Your task to perform on an android device: Add "duracell triple a" to the cart on ebay Image 0: 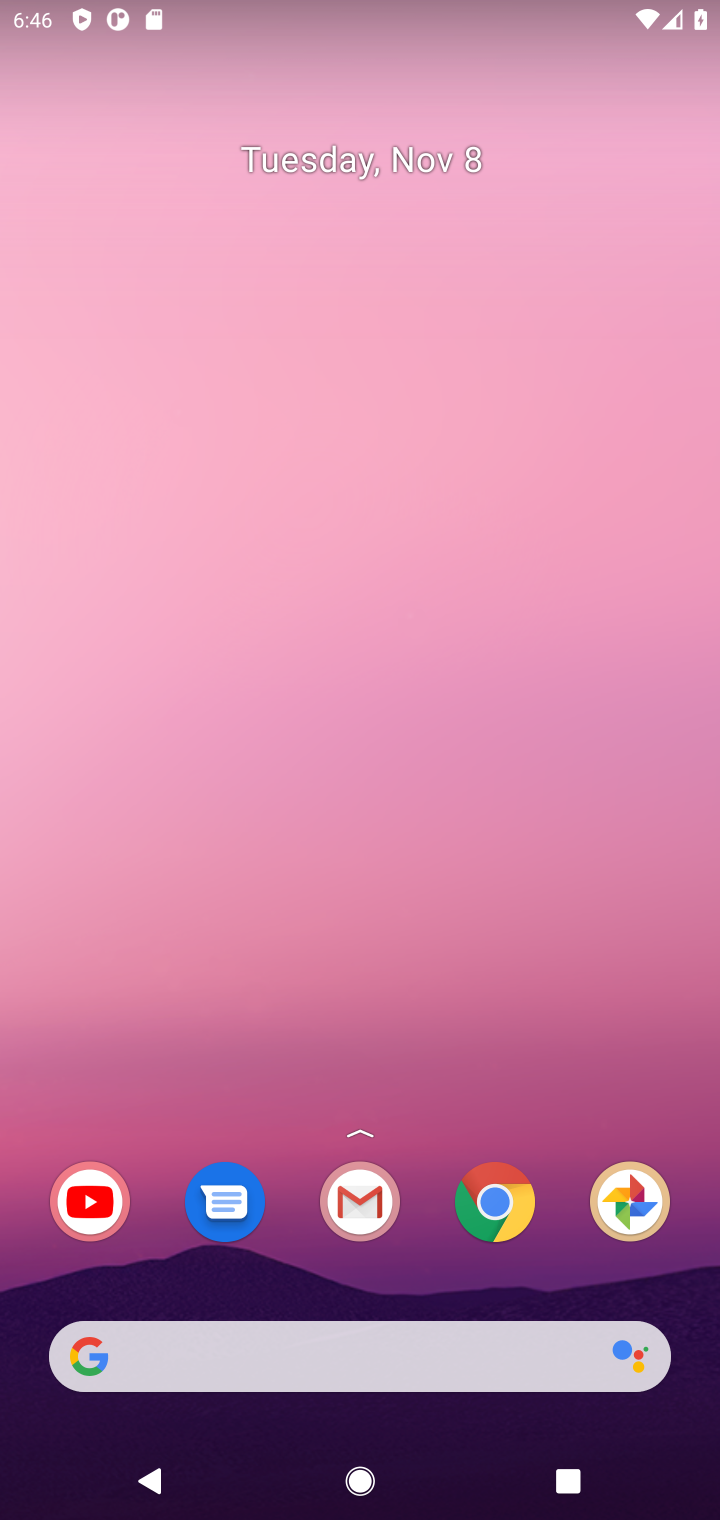
Step 0: click (283, 1355)
Your task to perform on an android device: Add "duracell triple a" to the cart on ebay Image 1: 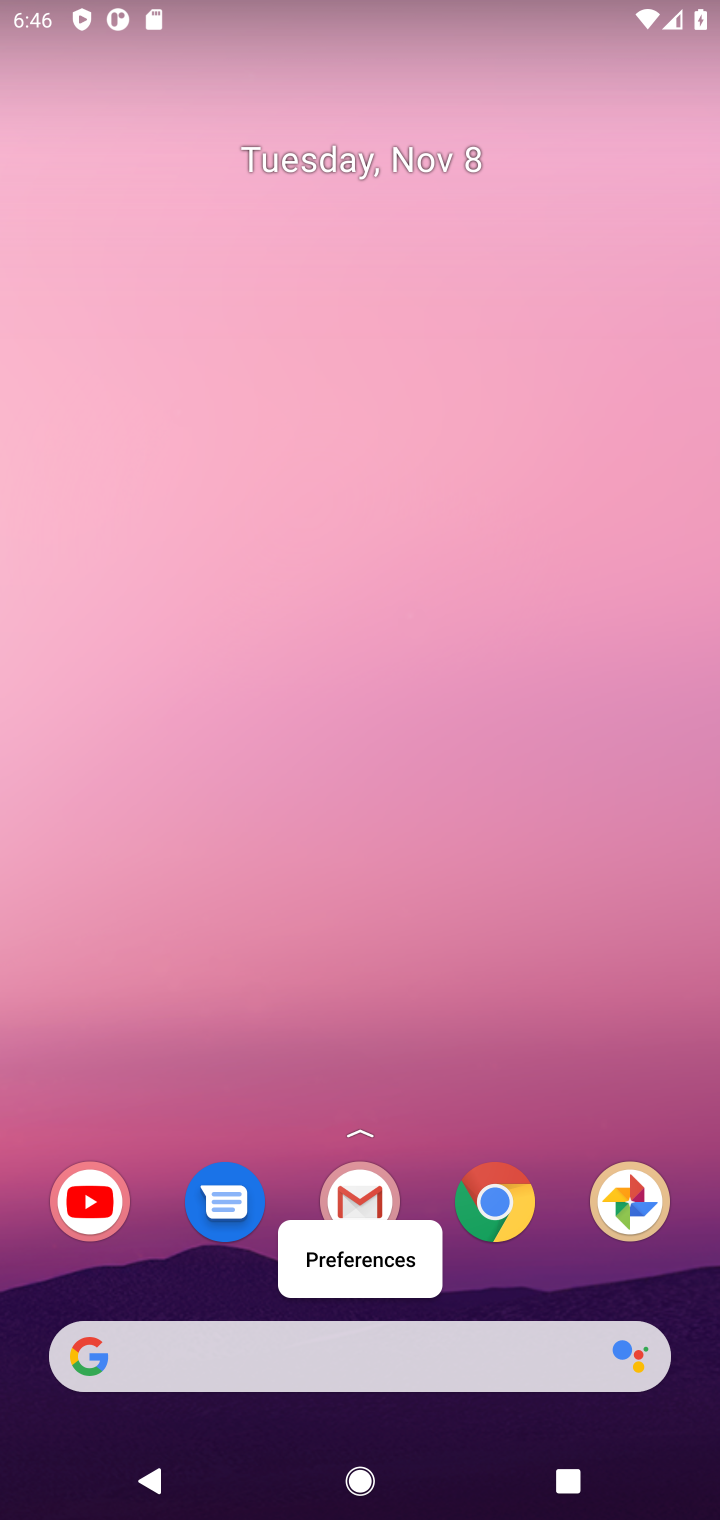
Step 1: click (265, 1363)
Your task to perform on an android device: Add "duracell triple a" to the cart on ebay Image 2: 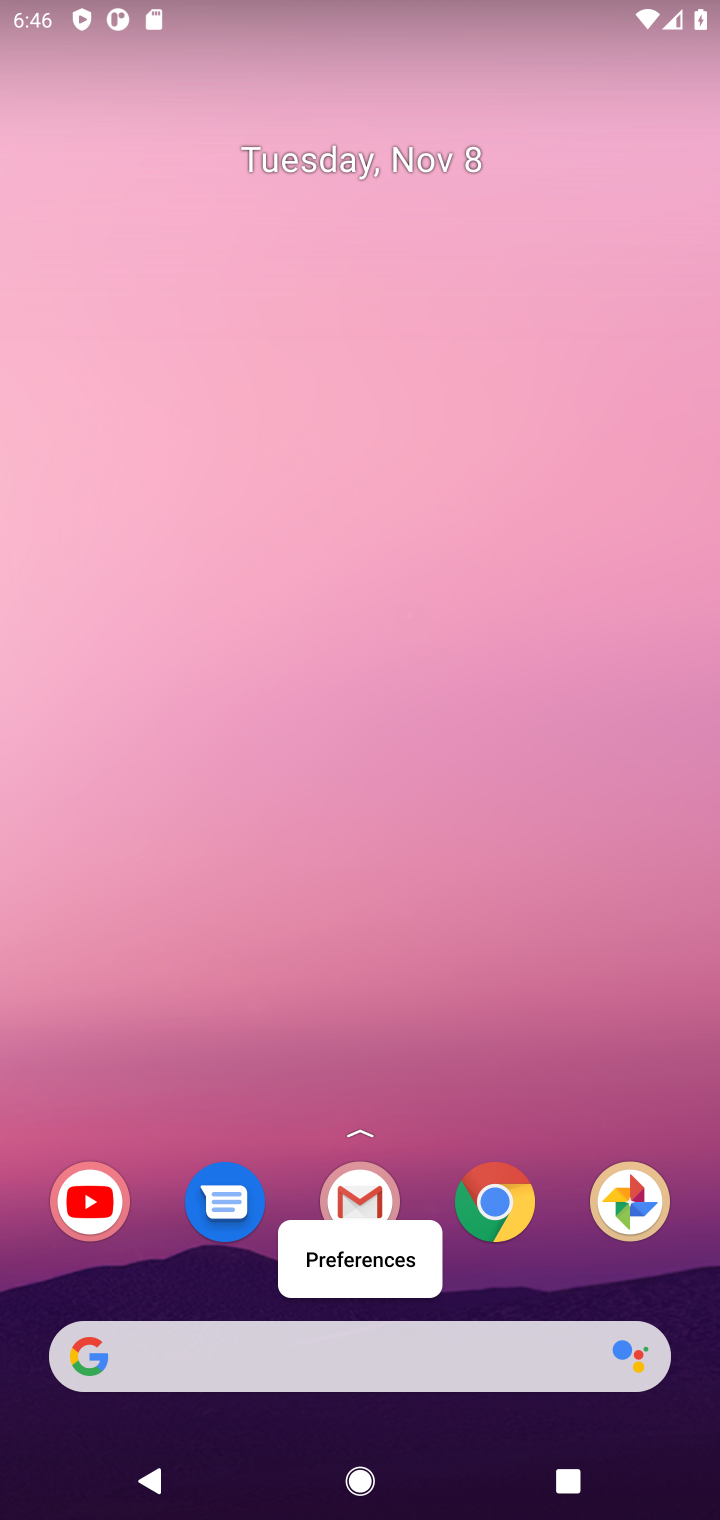
Step 2: click (265, 1363)
Your task to perform on an android device: Add "duracell triple a" to the cart on ebay Image 3: 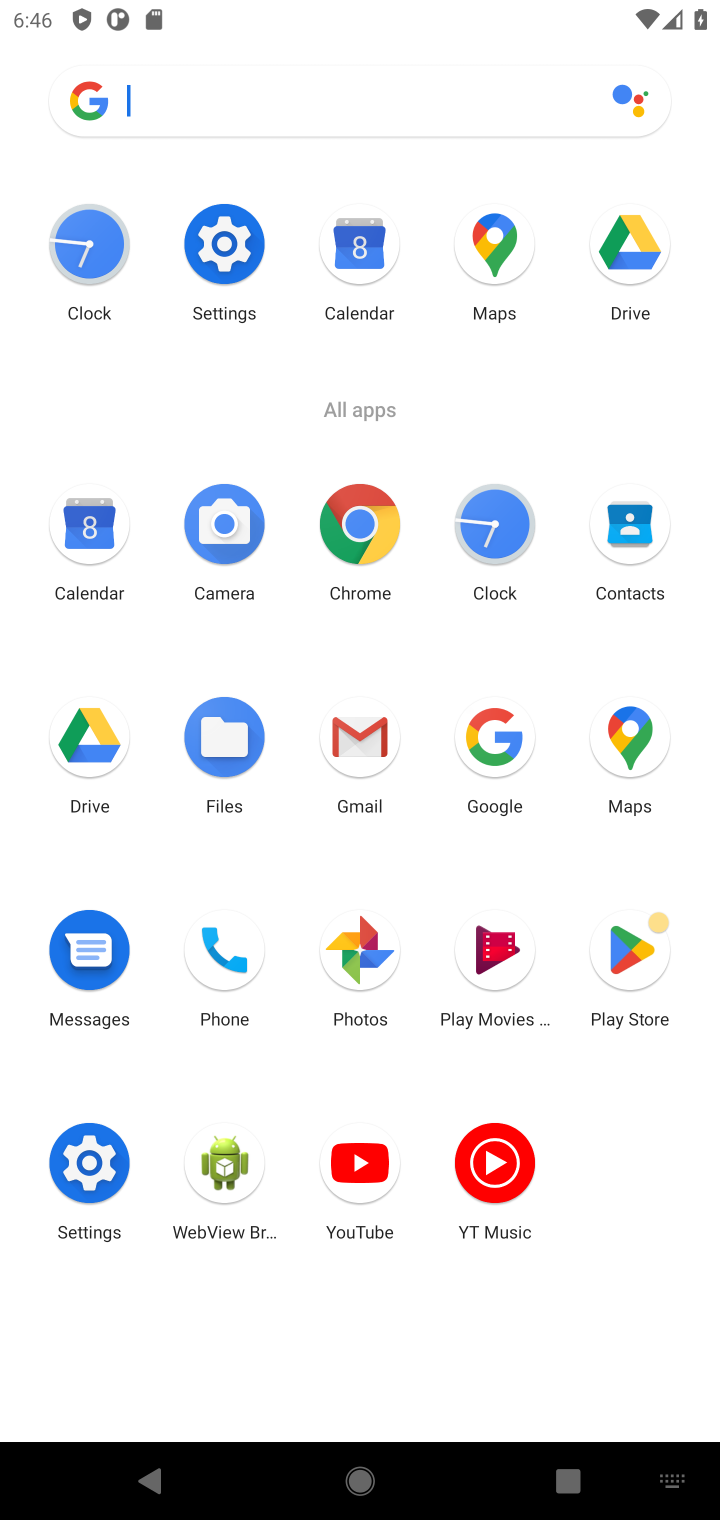
Step 3: type "ebay"
Your task to perform on an android device: Add "duracell triple a" to the cart on ebay Image 4: 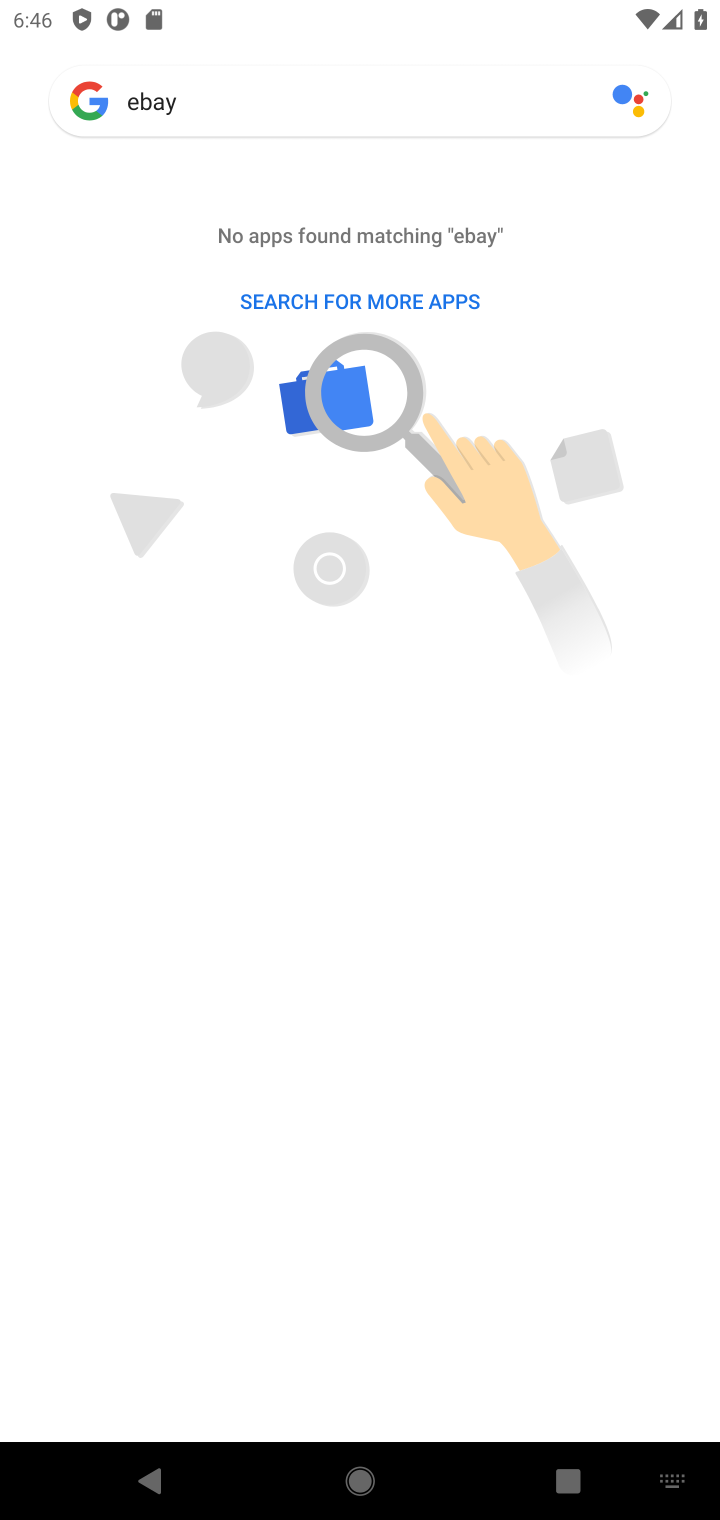
Step 4: type ""
Your task to perform on an android device: Add "duracell triple a" to the cart on ebay Image 5: 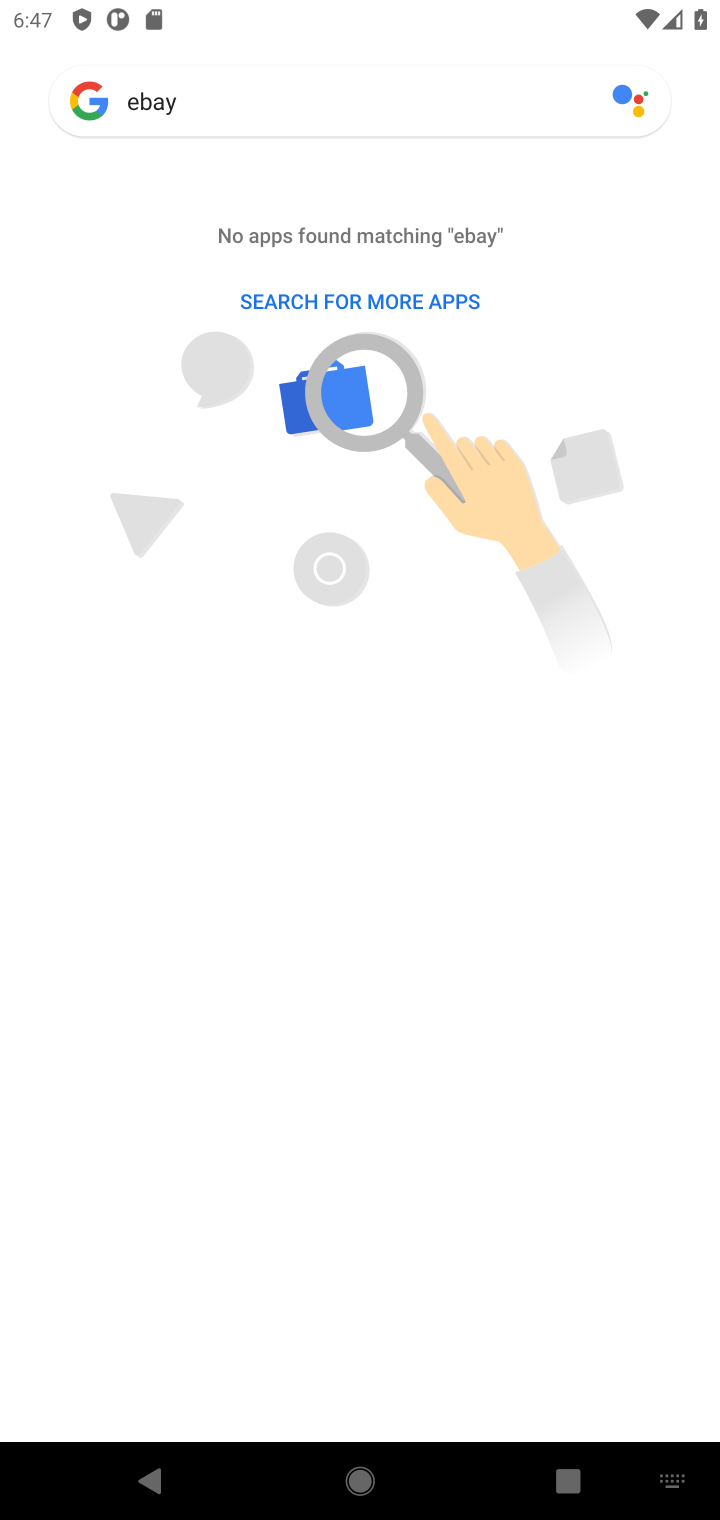
Step 5: press enter
Your task to perform on an android device: Add "duracell triple a" to the cart on ebay Image 6: 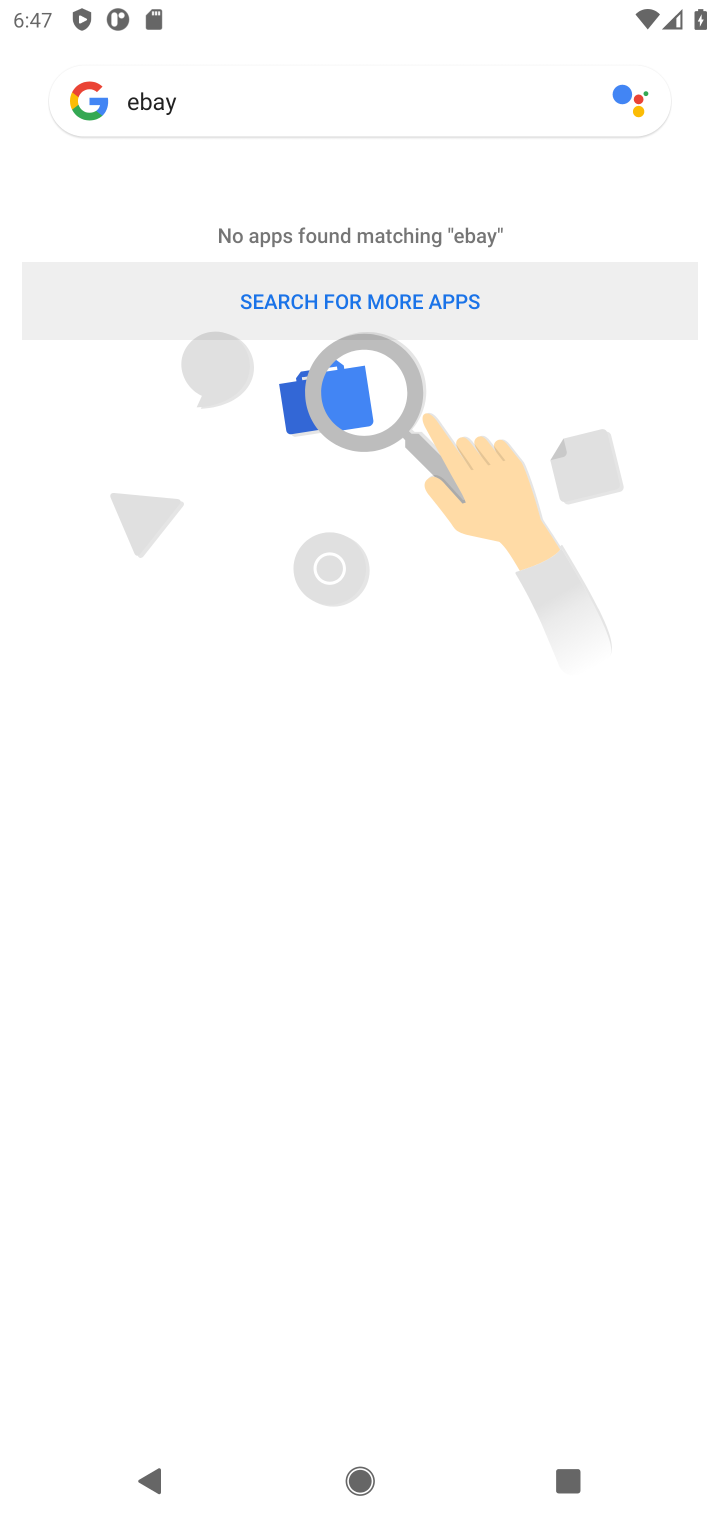
Step 6: press enter
Your task to perform on an android device: Add "duracell triple a" to the cart on ebay Image 7: 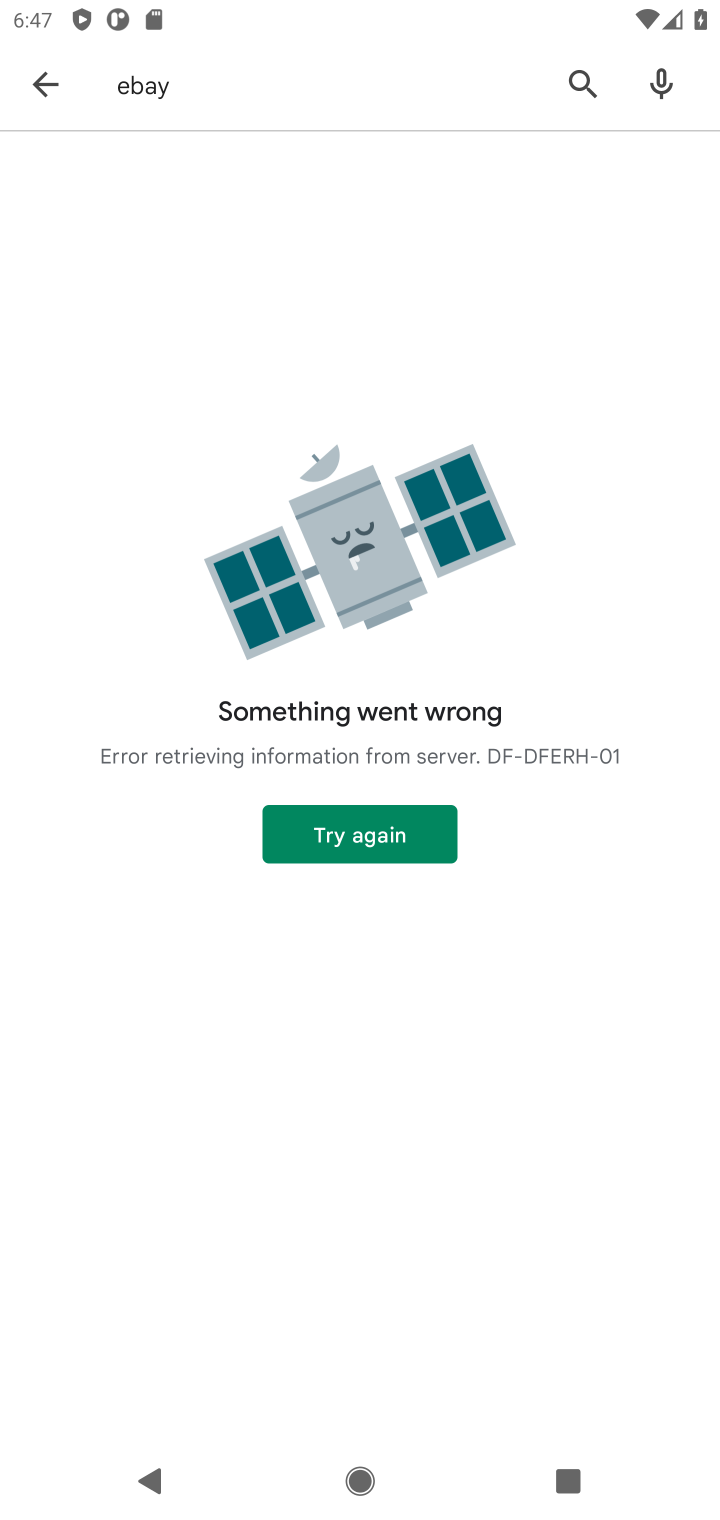
Step 7: click (49, 75)
Your task to perform on an android device: Add "duracell triple a" to the cart on ebay Image 8: 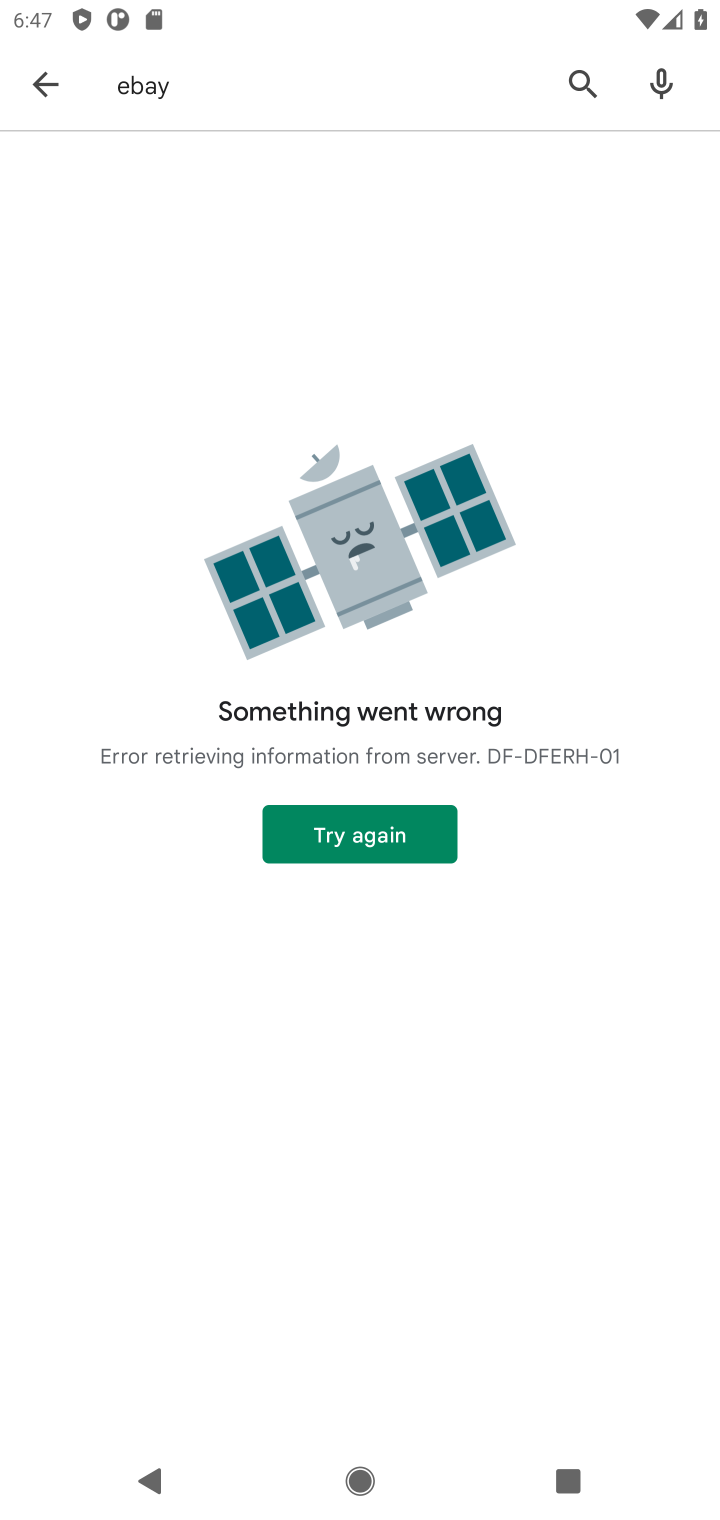
Step 8: press home button
Your task to perform on an android device: Add "duracell triple a" to the cart on ebay Image 9: 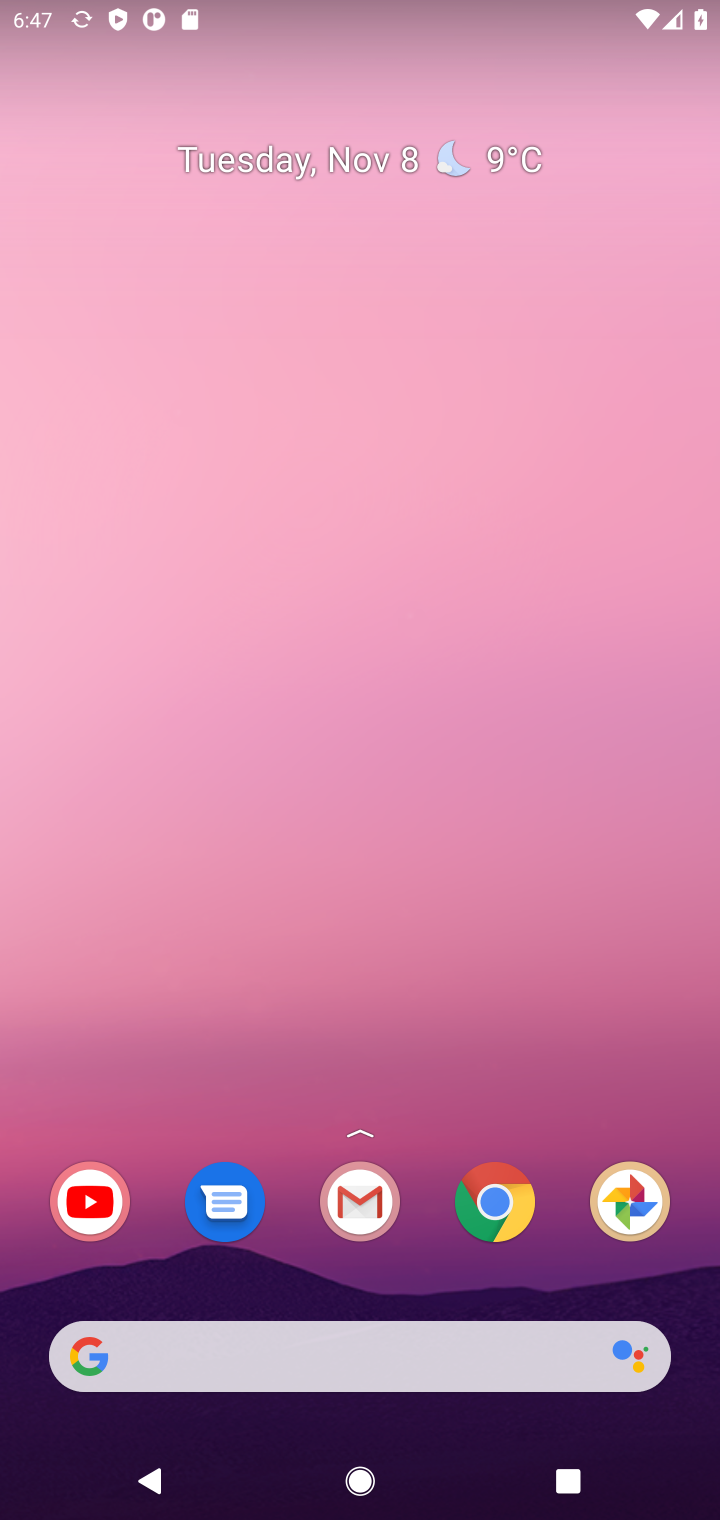
Step 9: click (408, 1363)
Your task to perform on an android device: Add "duracell triple a" to the cart on ebay Image 10: 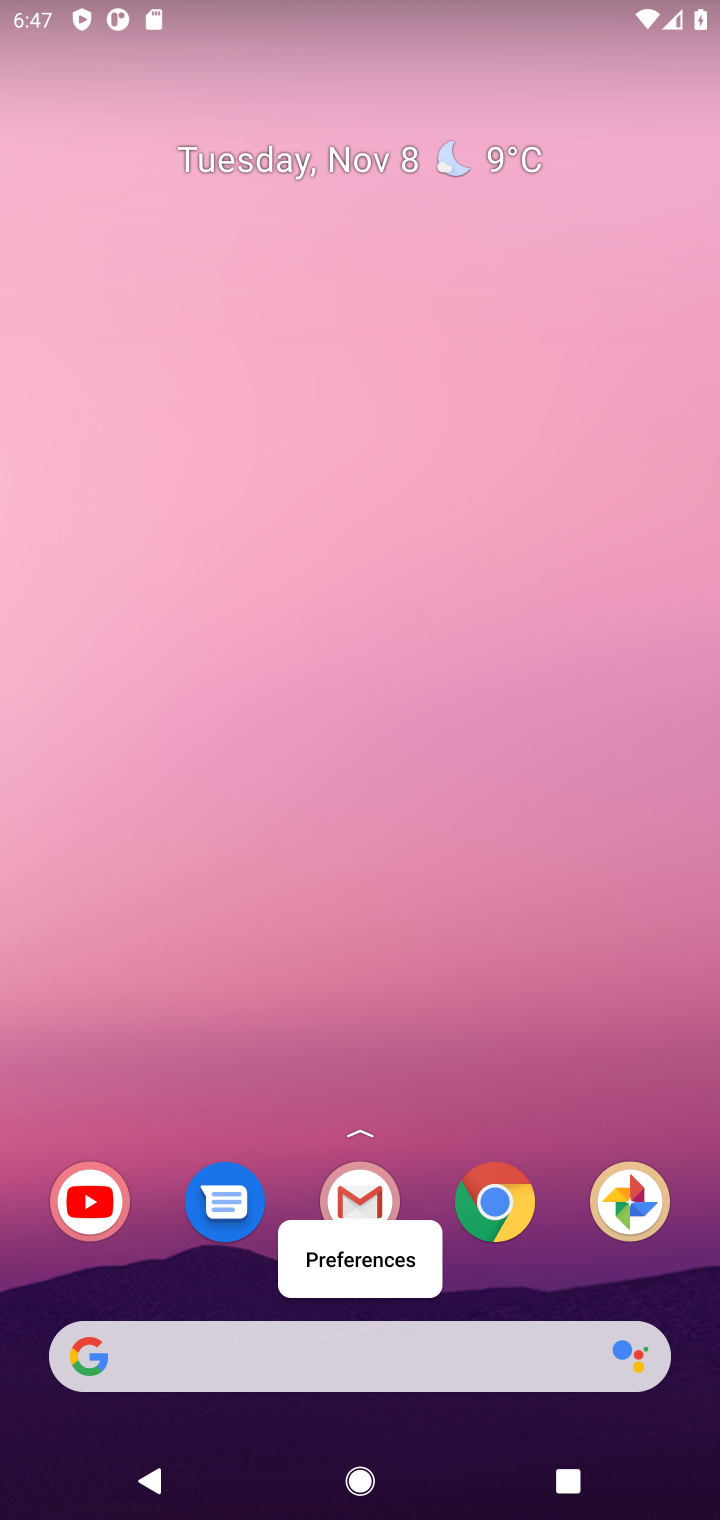
Step 10: click (408, 1363)
Your task to perform on an android device: Add "duracell triple a" to the cart on ebay Image 11: 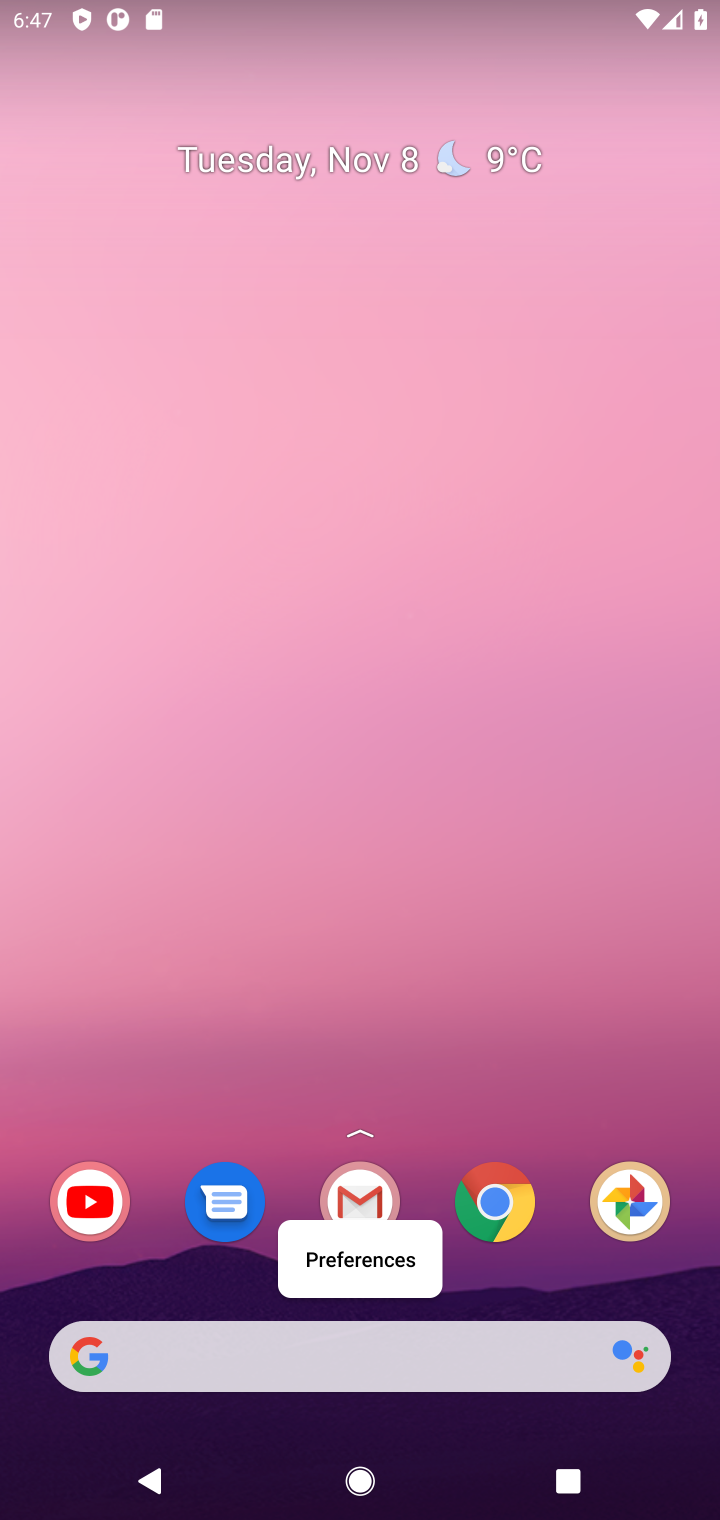
Step 11: click (408, 1363)
Your task to perform on an android device: Add "duracell triple a" to the cart on ebay Image 12: 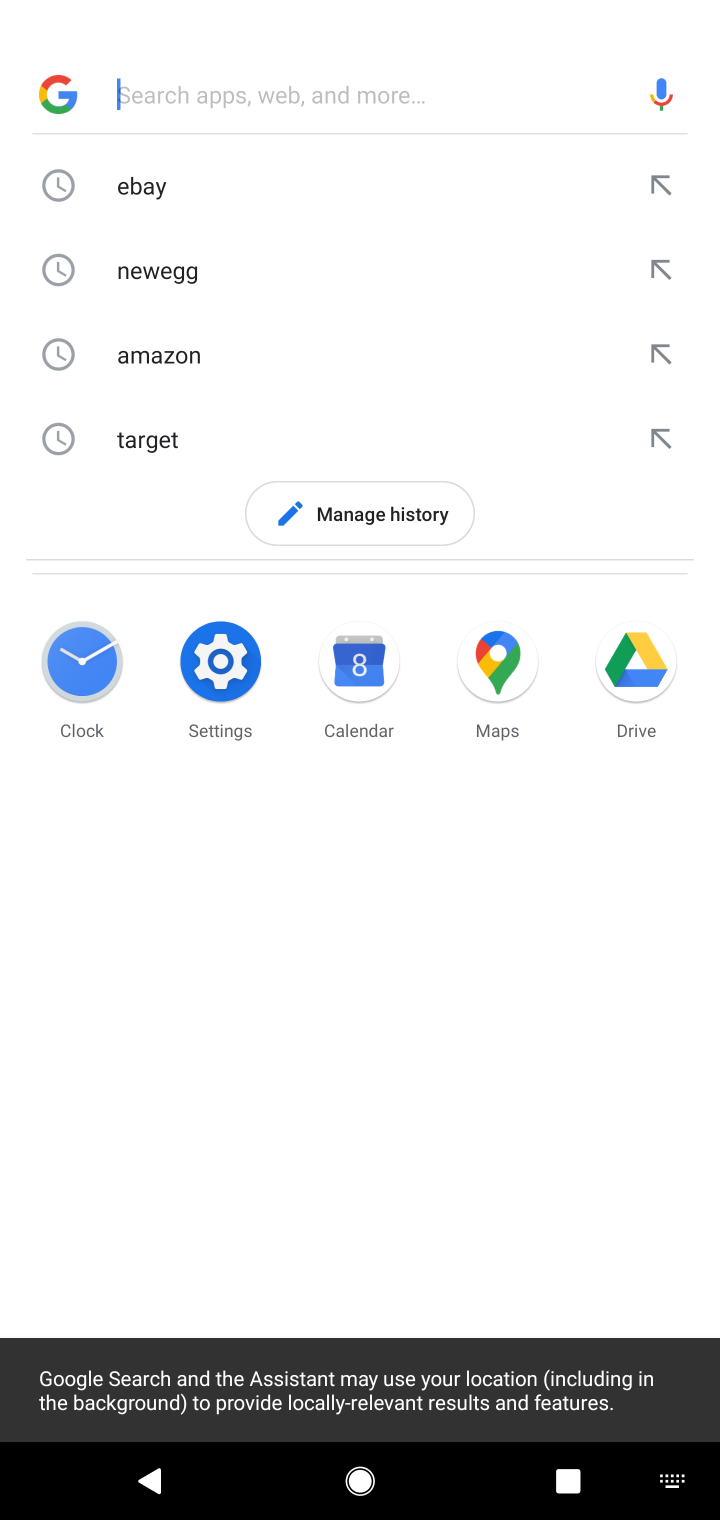
Step 12: click (260, 191)
Your task to perform on an android device: Add "duracell triple a" to the cart on ebay Image 13: 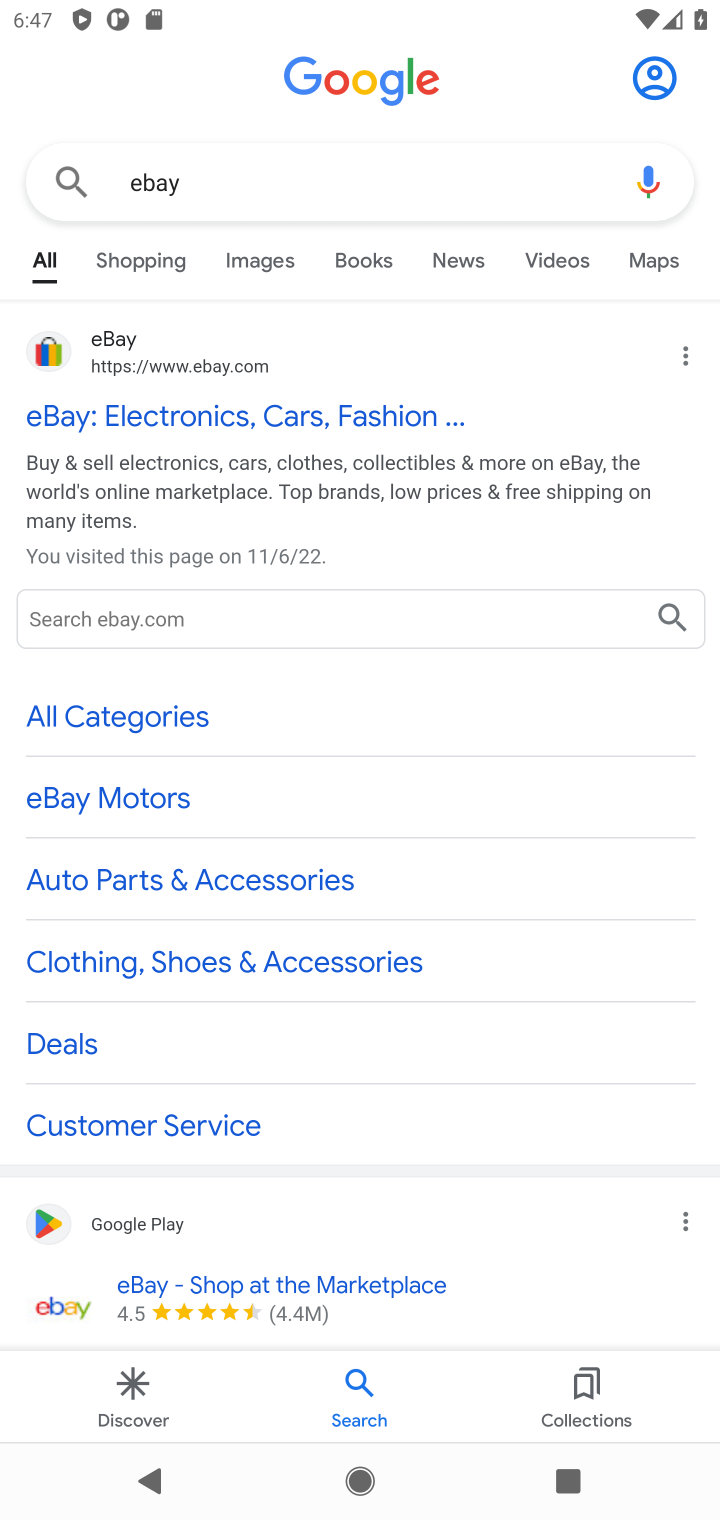
Step 13: click (98, 519)
Your task to perform on an android device: Add "duracell triple a" to the cart on ebay Image 14: 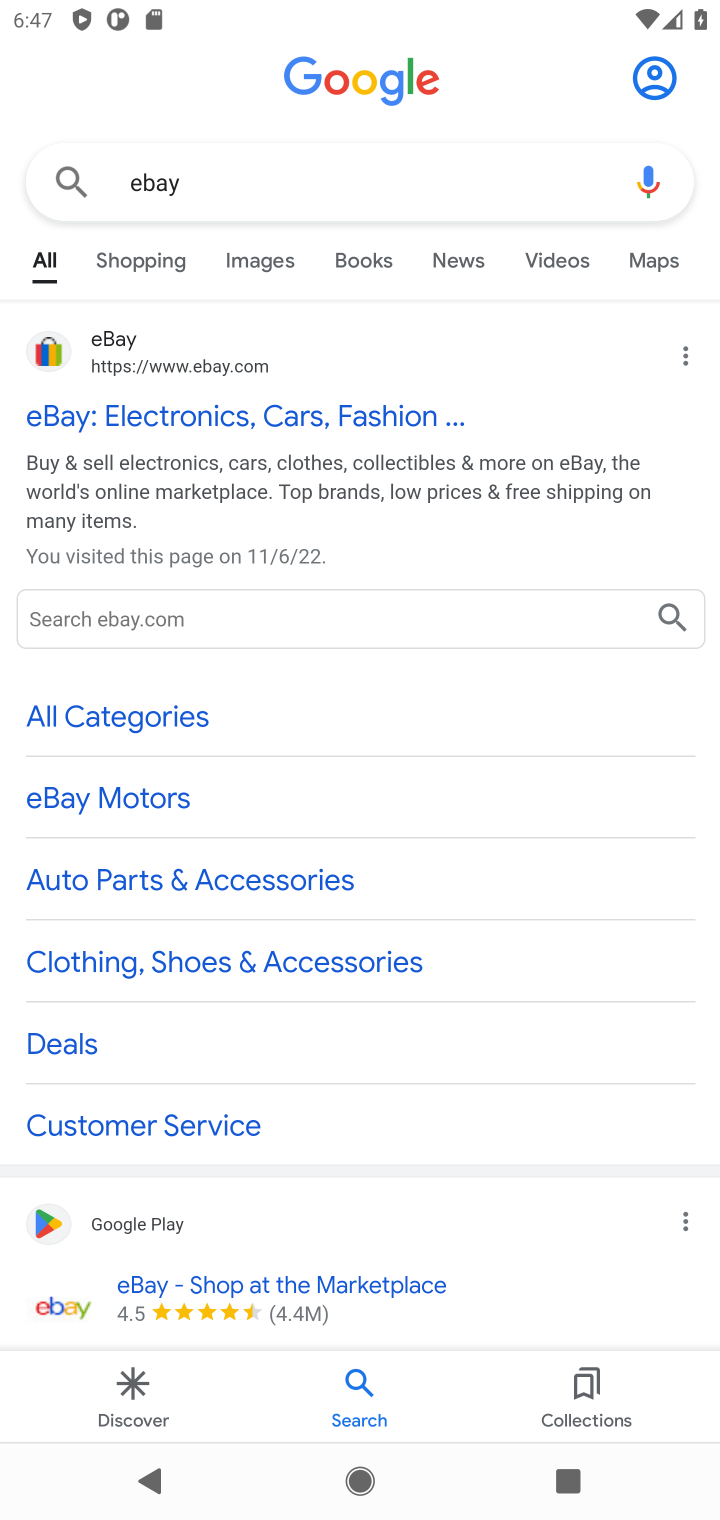
Step 14: click (258, 403)
Your task to perform on an android device: Add "duracell triple a" to the cart on ebay Image 15: 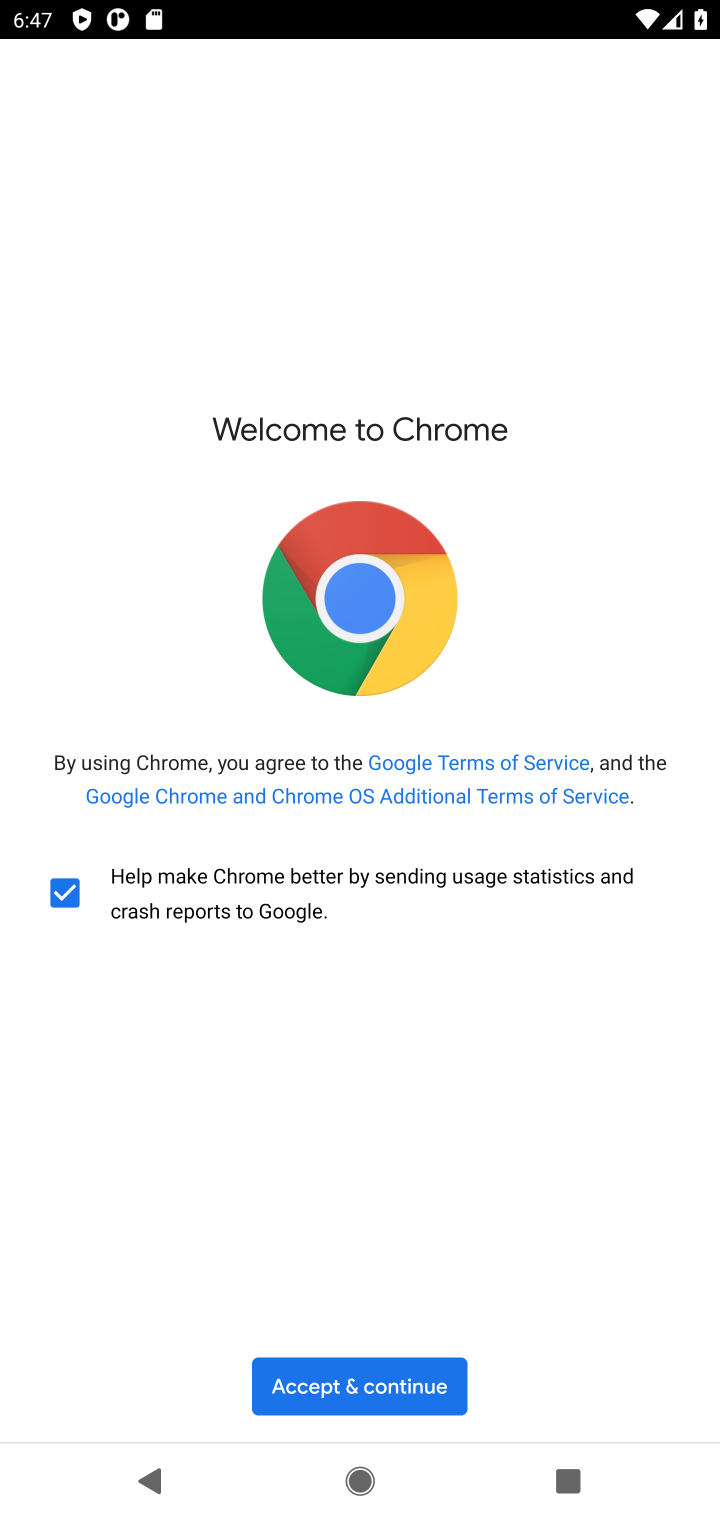
Step 15: click (377, 1389)
Your task to perform on an android device: Add "duracell triple a" to the cart on ebay Image 16: 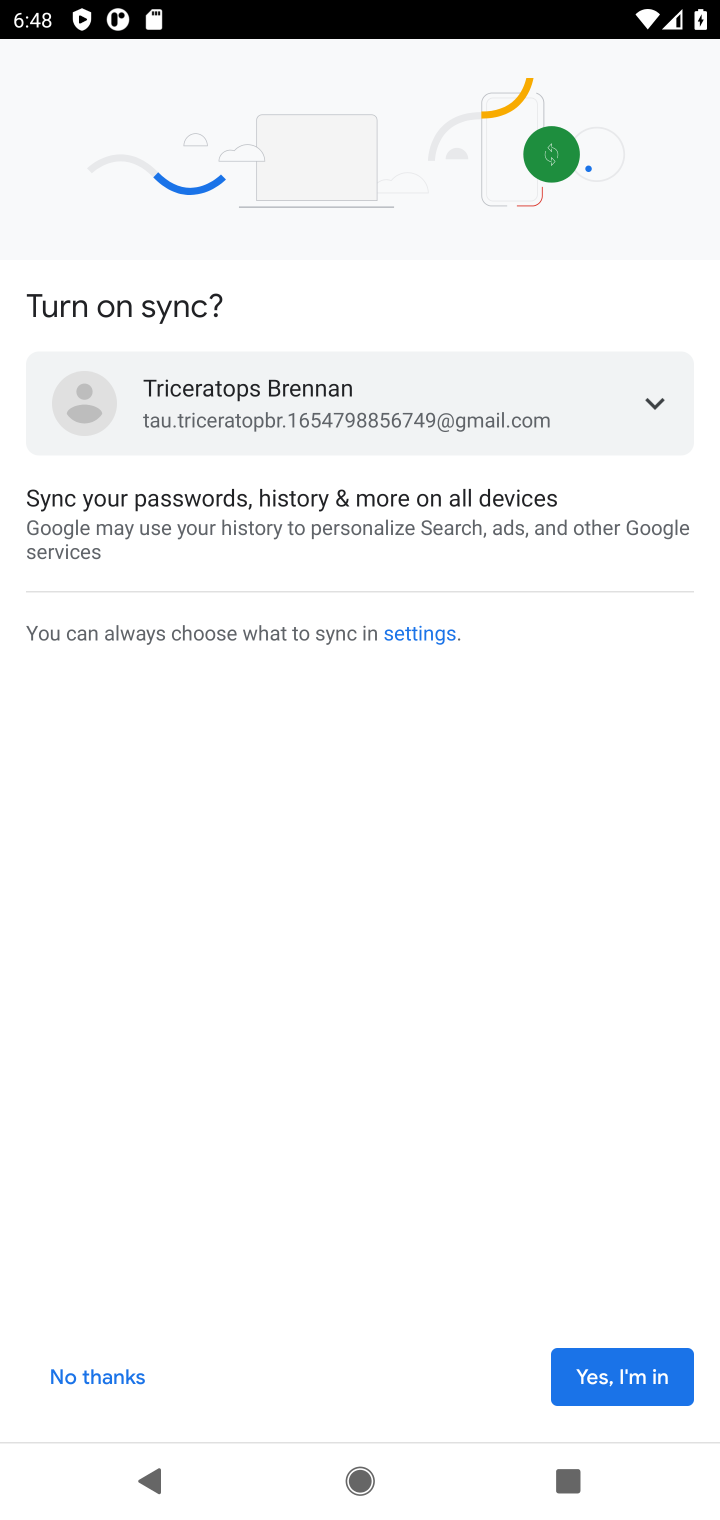
Step 16: click (593, 1370)
Your task to perform on an android device: Add "duracell triple a" to the cart on ebay Image 17: 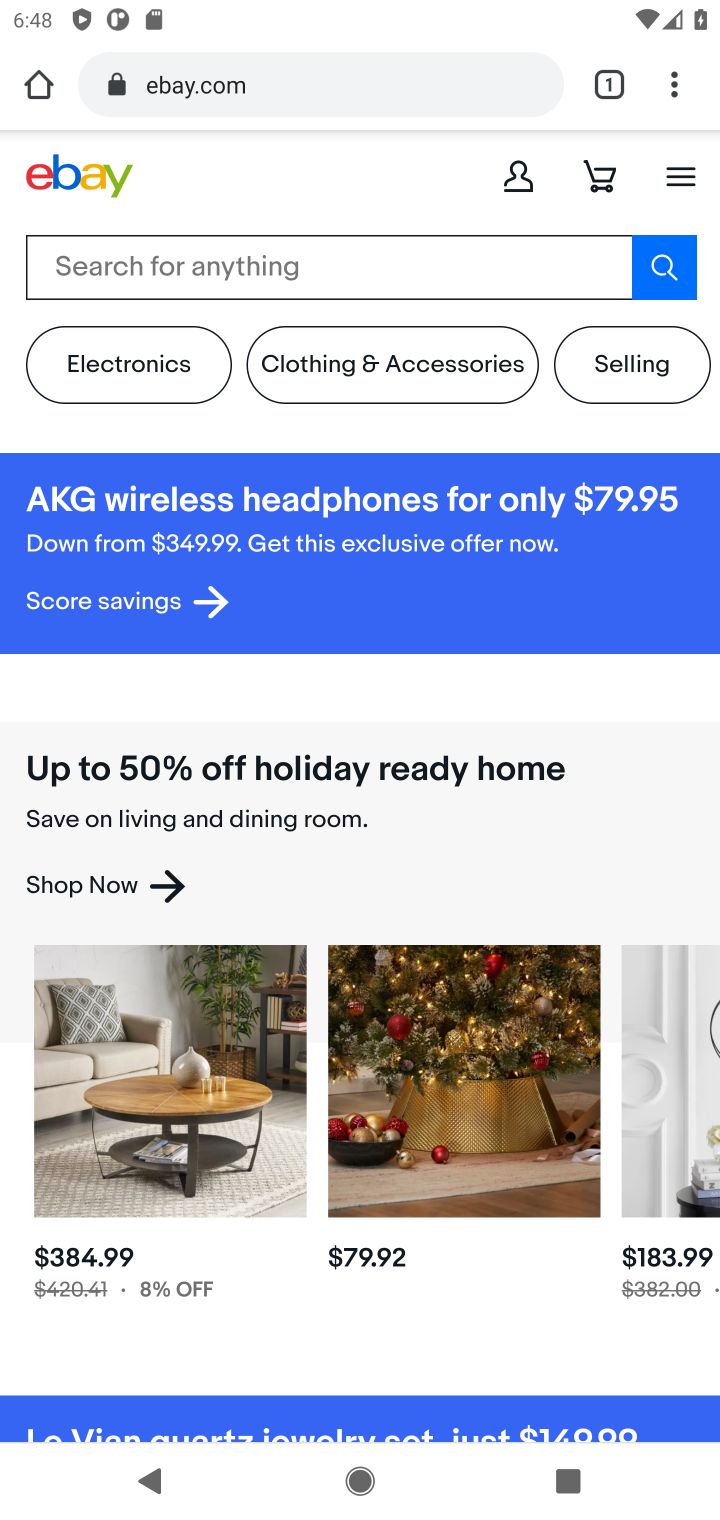
Step 17: click (156, 256)
Your task to perform on an android device: Add "duracell triple a" to the cart on ebay Image 18: 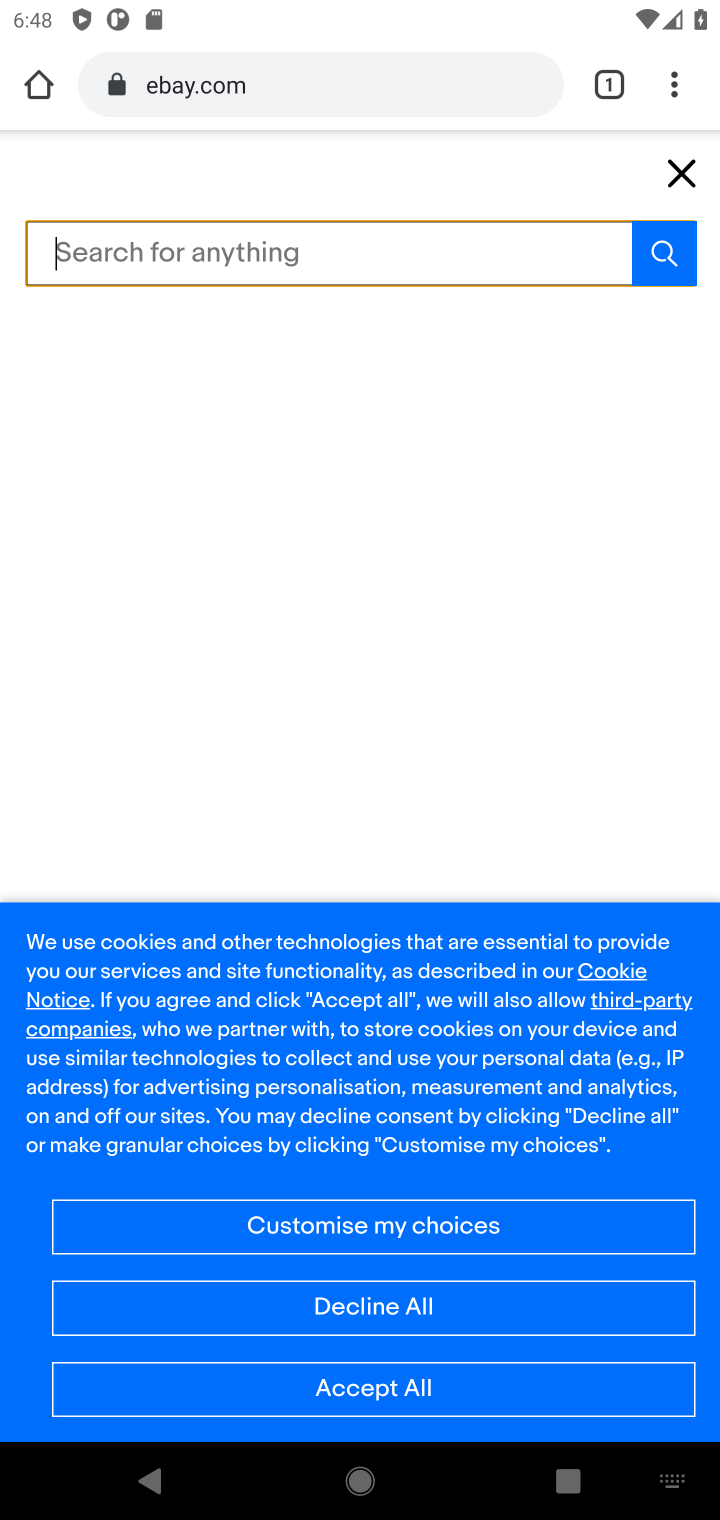
Step 18: click (378, 1312)
Your task to perform on an android device: Add "duracell triple a" to the cart on ebay Image 19: 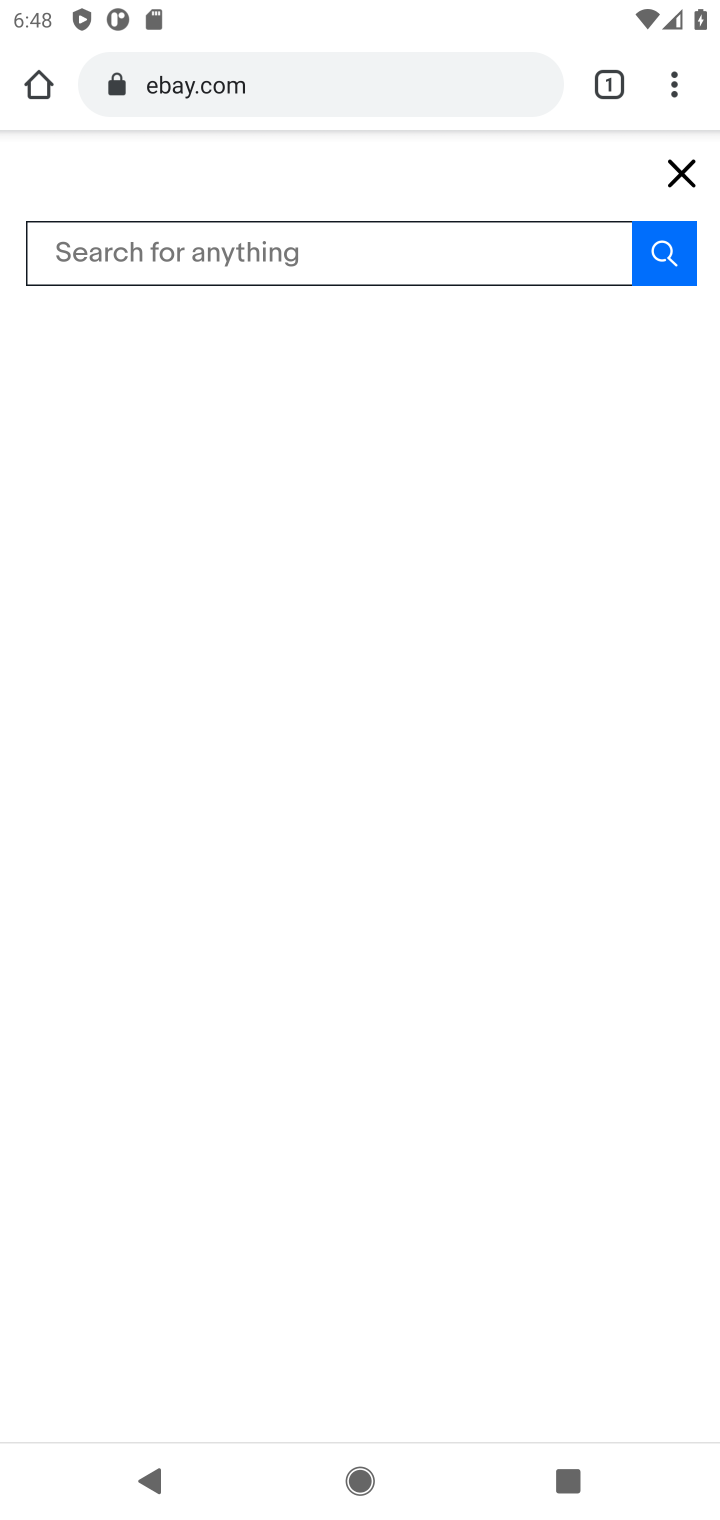
Step 19: click (240, 254)
Your task to perform on an android device: Add "duracell triple a" to the cart on ebay Image 20: 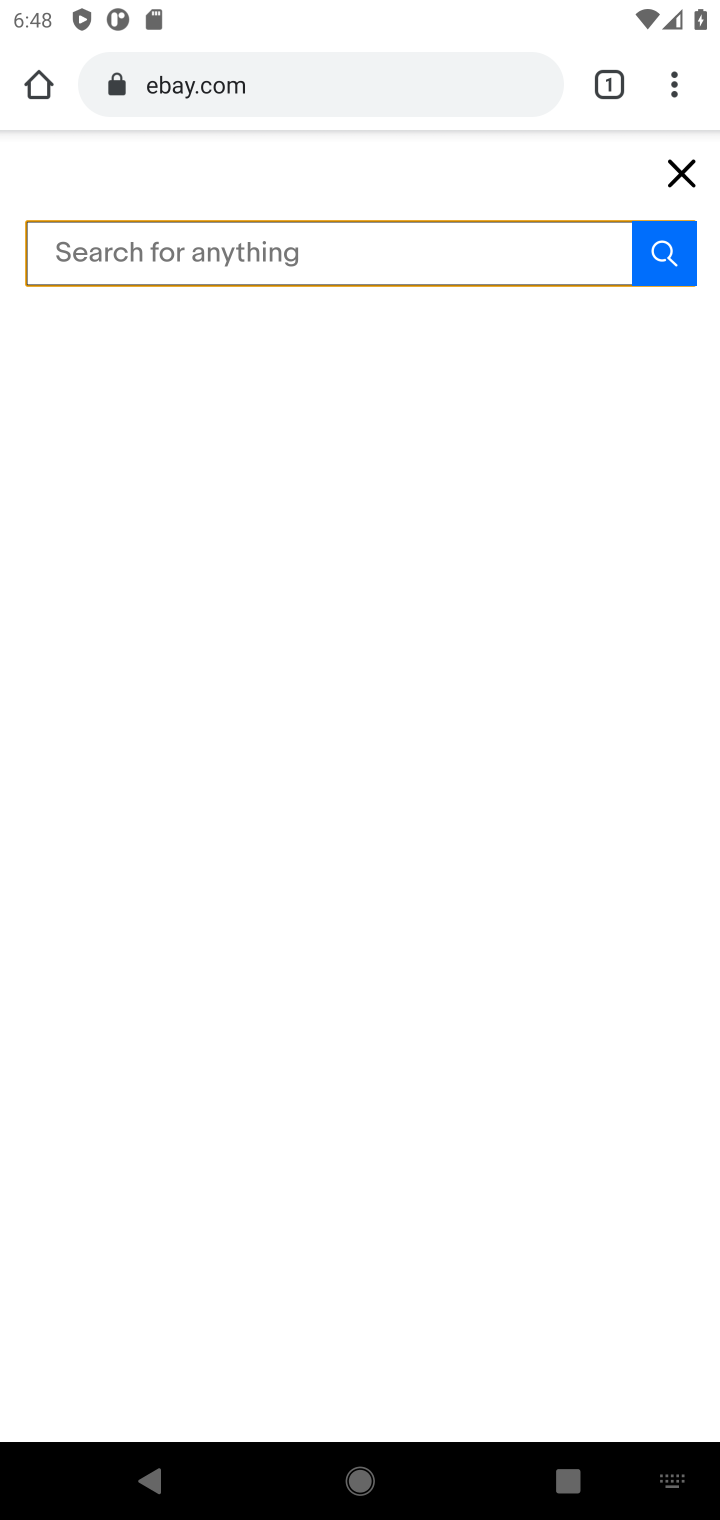
Step 20: type "duracell triple a"
Your task to perform on an android device: Add "duracell triple a" to the cart on ebay Image 21: 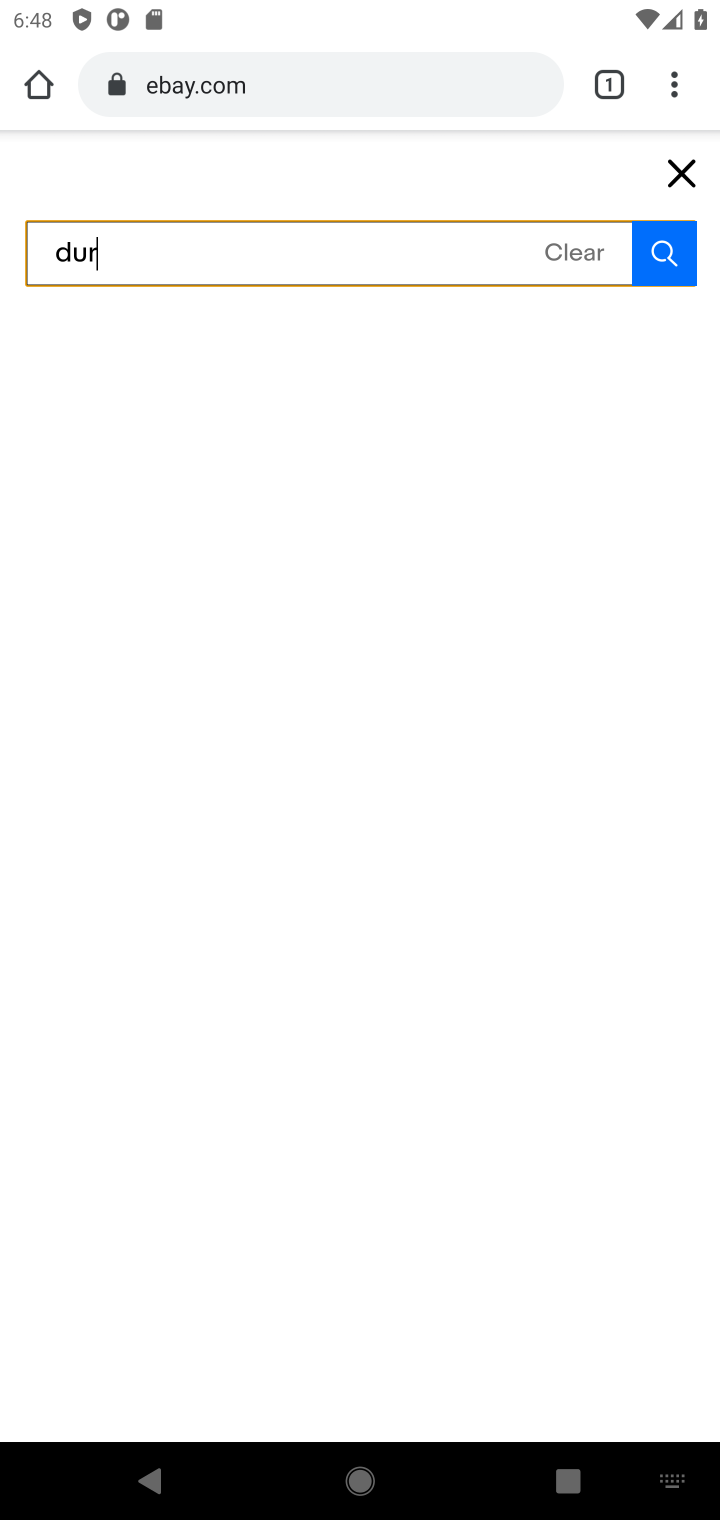
Step 21: type ""
Your task to perform on an android device: Add "duracell triple a" to the cart on ebay Image 22: 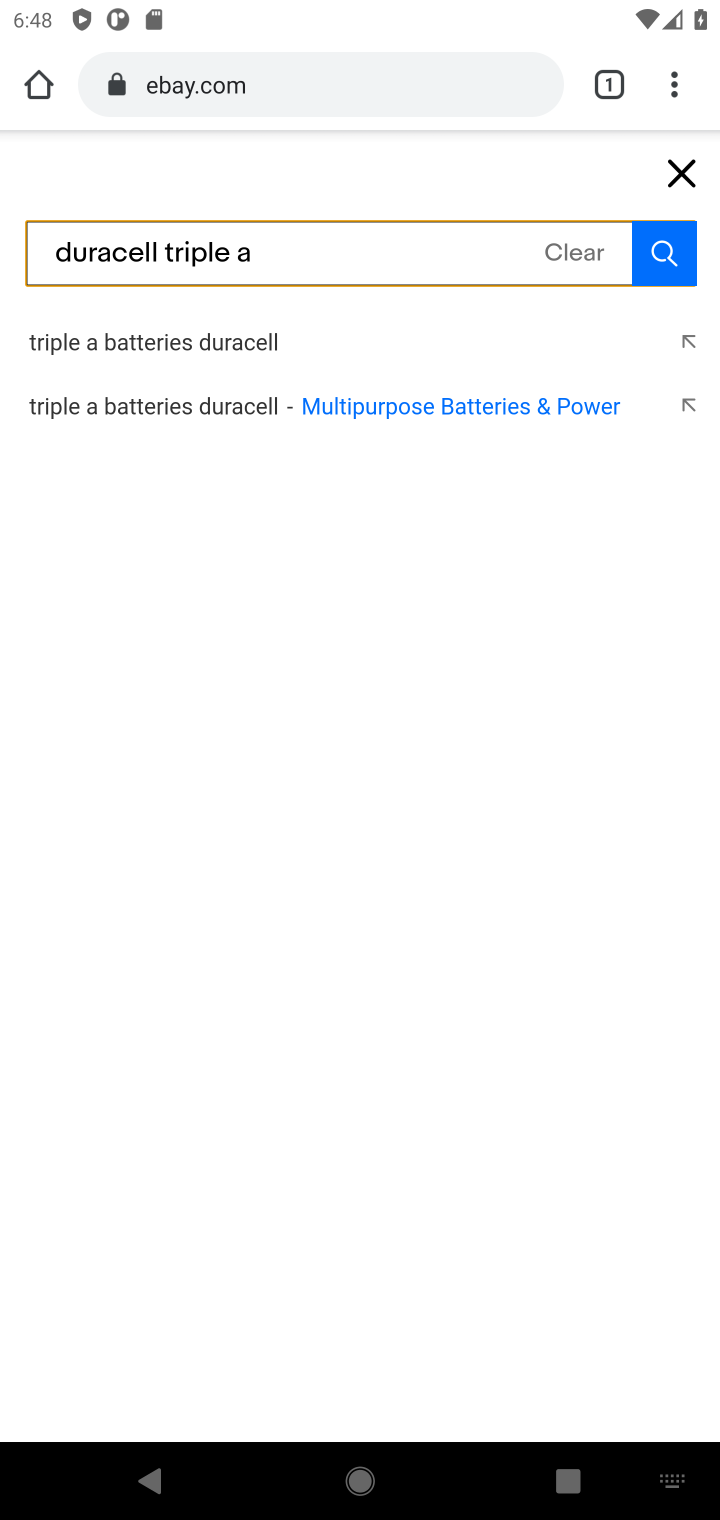
Step 22: press enter
Your task to perform on an android device: Add "duracell triple a" to the cart on ebay Image 23: 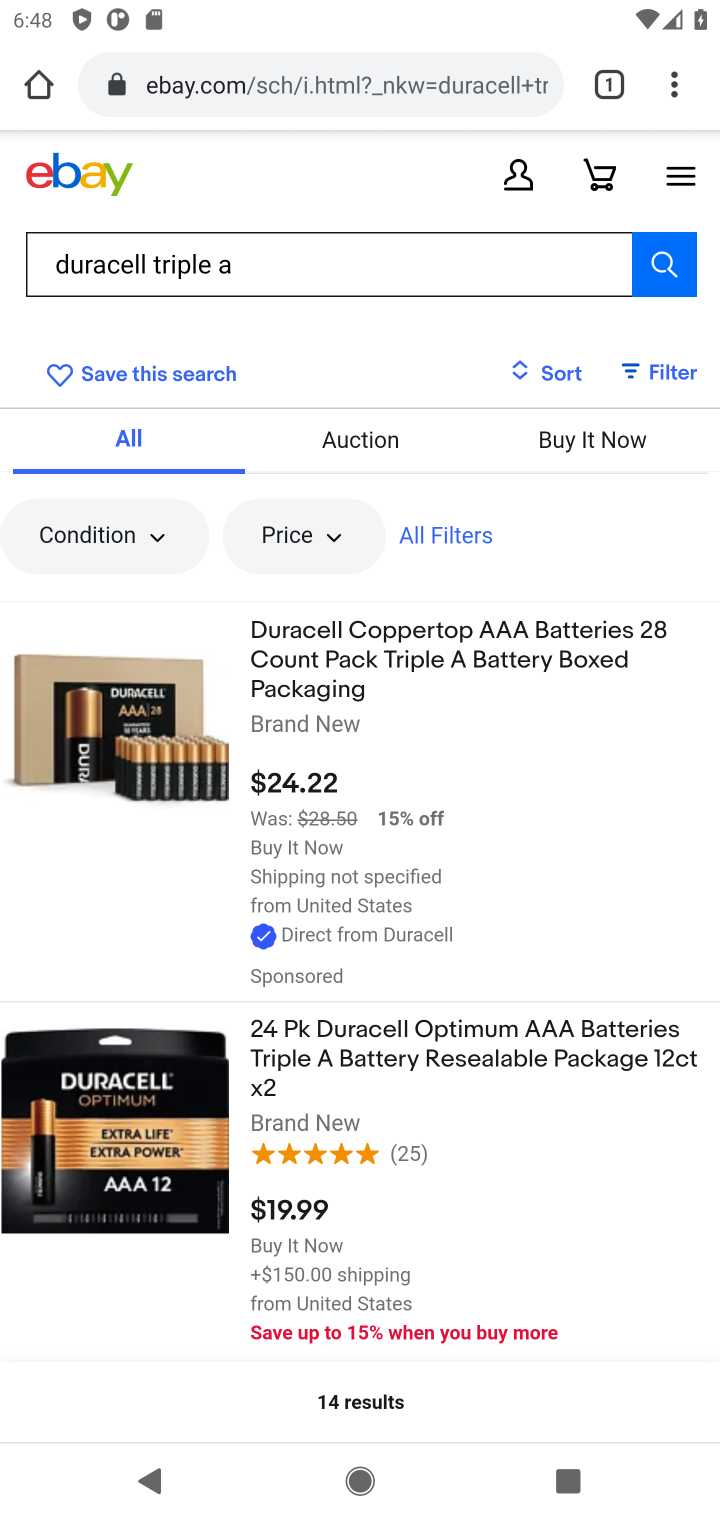
Step 23: click (363, 640)
Your task to perform on an android device: Add "duracell triple a" to the cart on ebay Image 24: 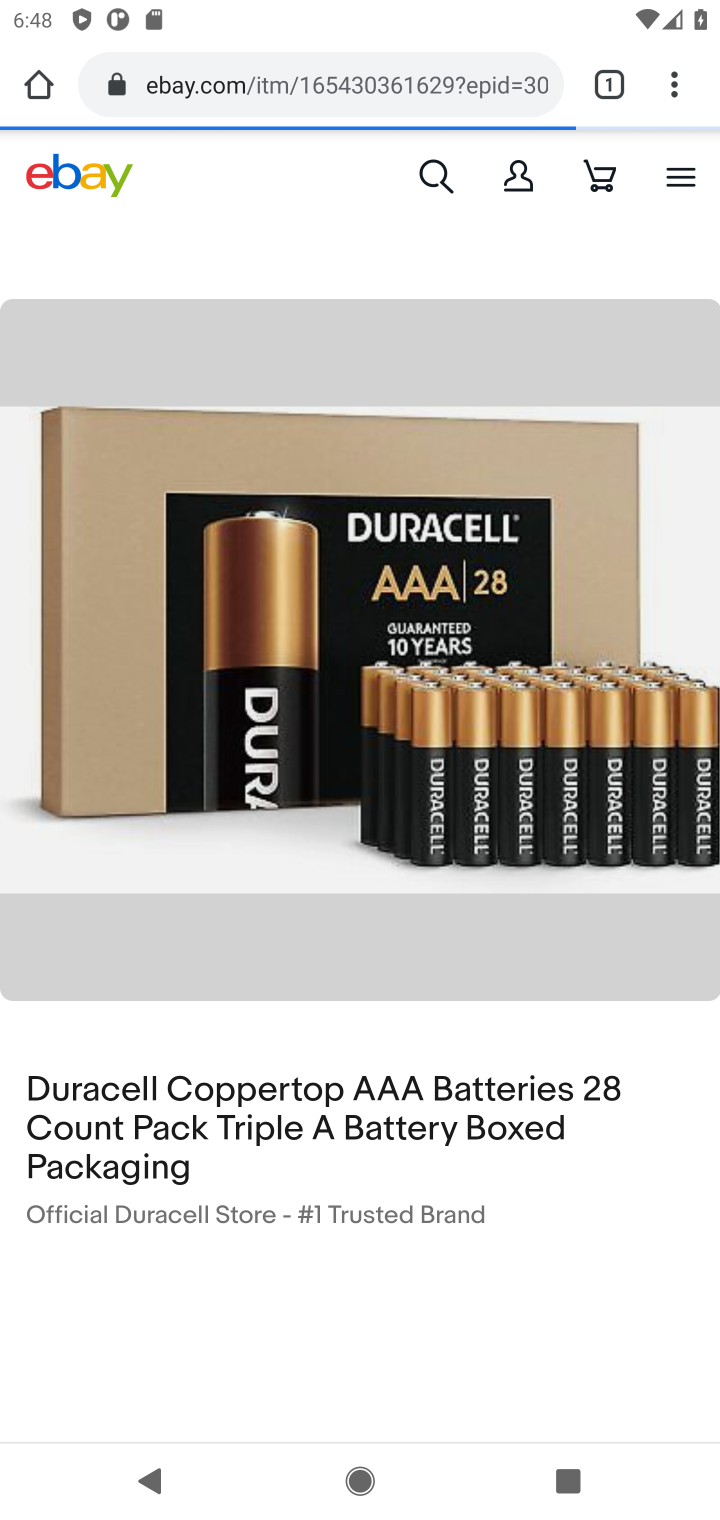
Step 24: drag from (558, 1224) to (448, 545)
Your task to perform on an android device: Add "duracell triple a" to the cart on ebay Image 25: 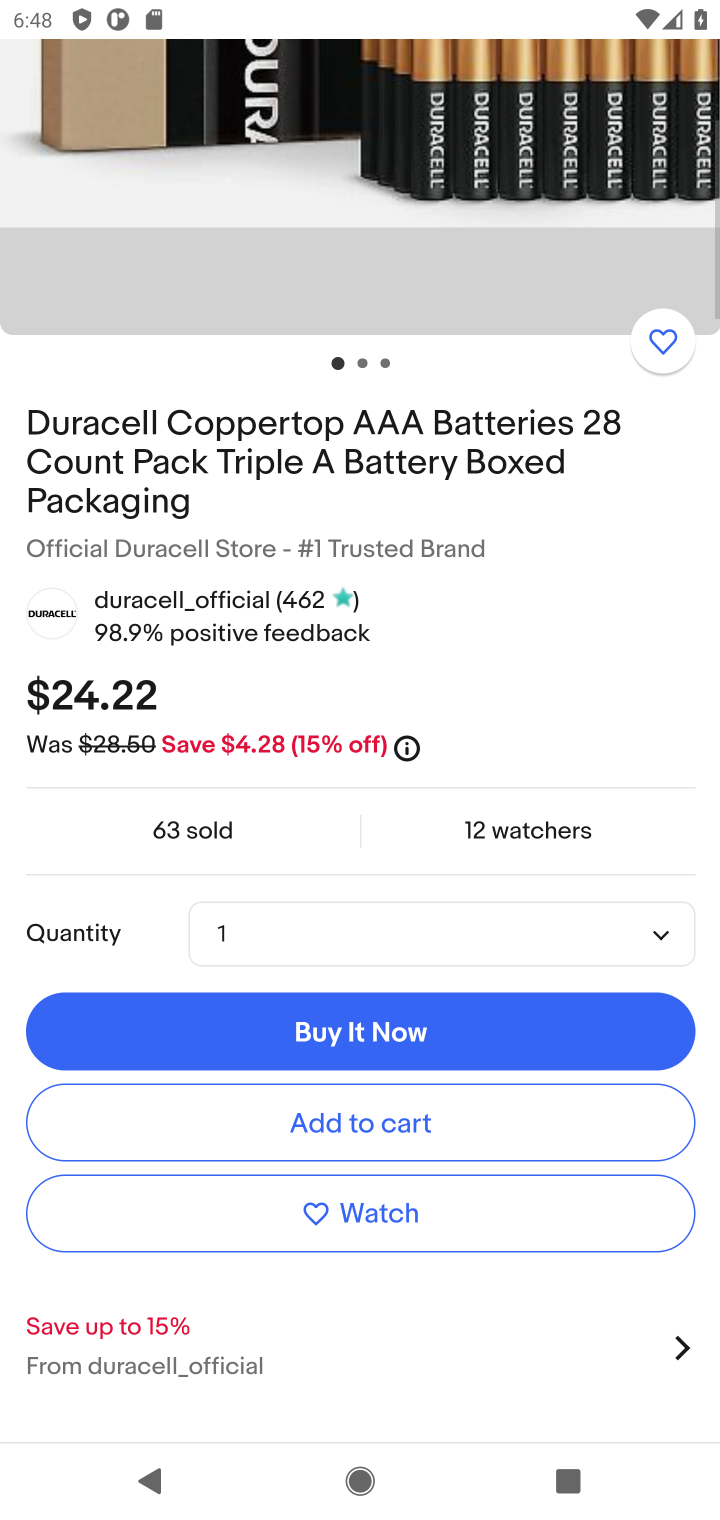
Step 25: click (379, 1131)
Your task to perform on an android device: Add "duracell triple a" to the cart on ebay Image 26: 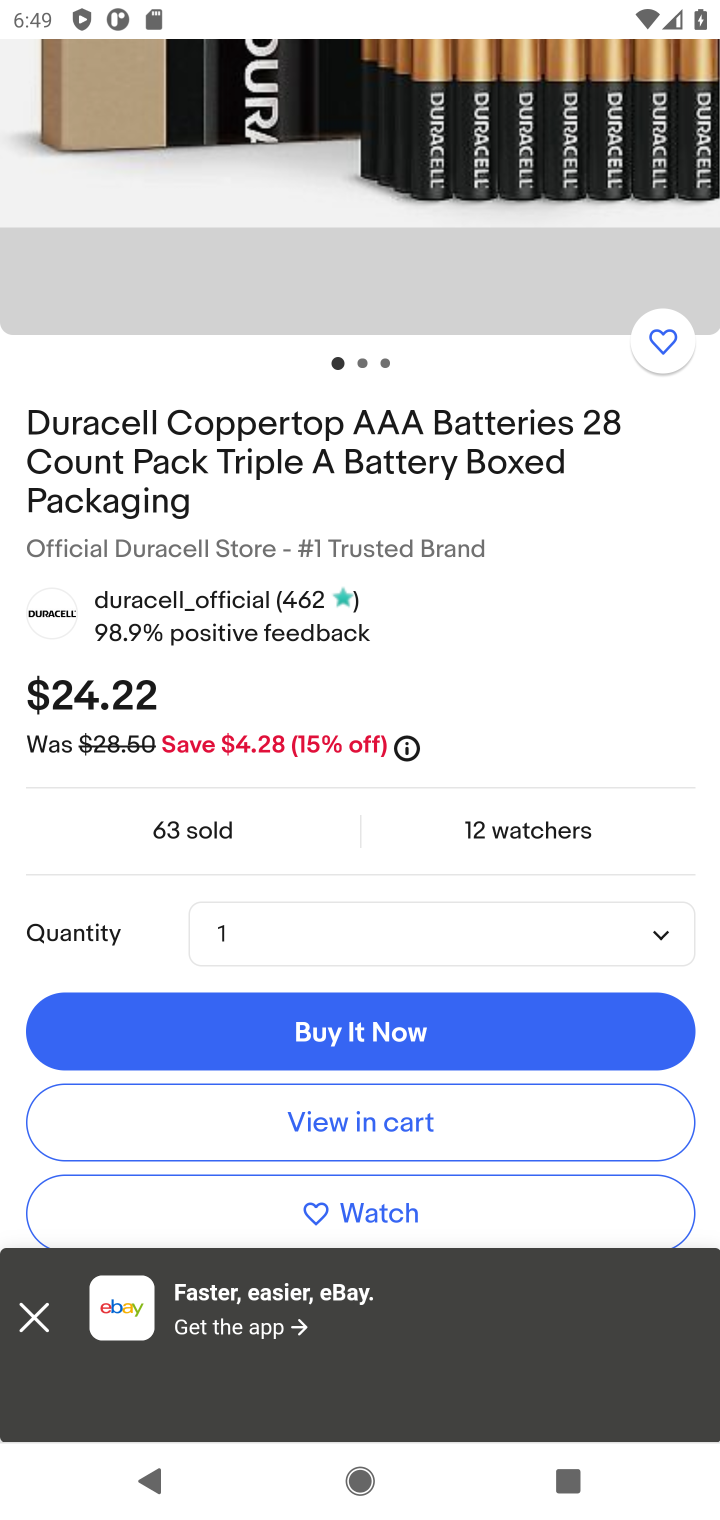
Step 26: task complete